Your task to perform on an android device: What's the weather going to be this weekend? Image 0: 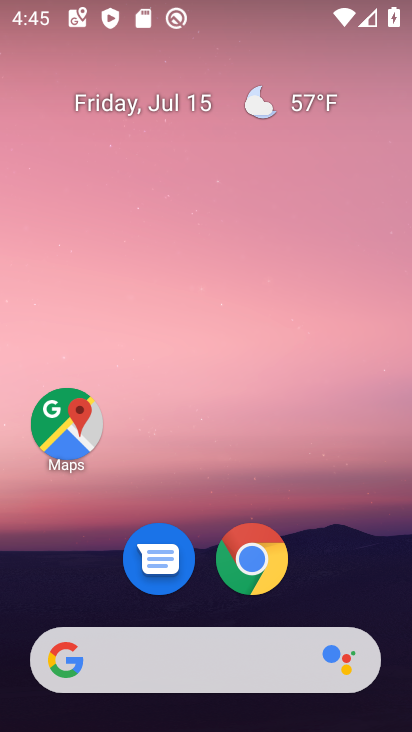
Step 0: click (214, 71)
Your task to perform on an android device: What's the weather going to be this weekend? Image 1: 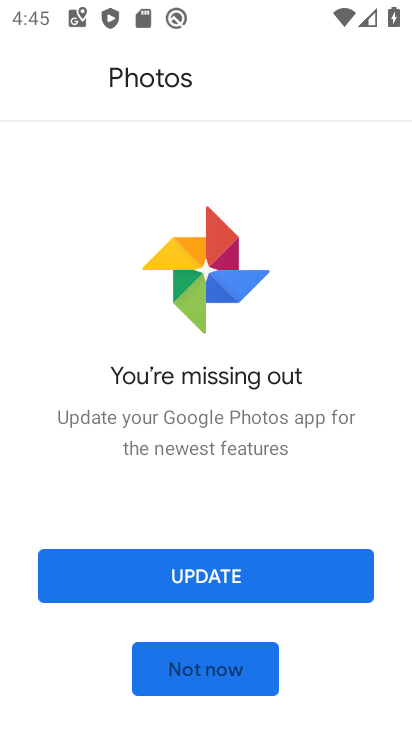
Step 1: click (235, 688)
Your task to perform on an android device: What's the weather going to be this weekend? Image 2: 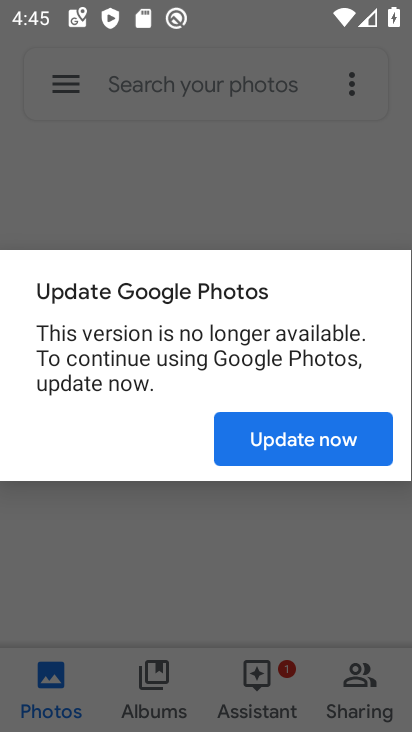
Step 2: press back button
Your task to perform on an android device: What's the weather going to be this weekend? Image 3: 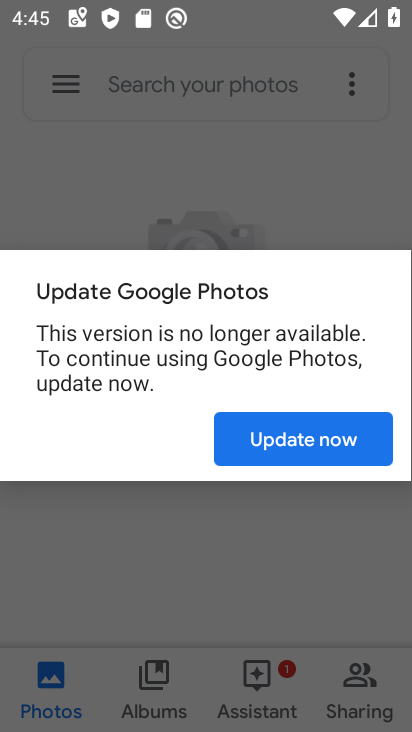
Step 3: press home button
Your task to perform on an android device: What's the weather going to be this weekend? Image 4: 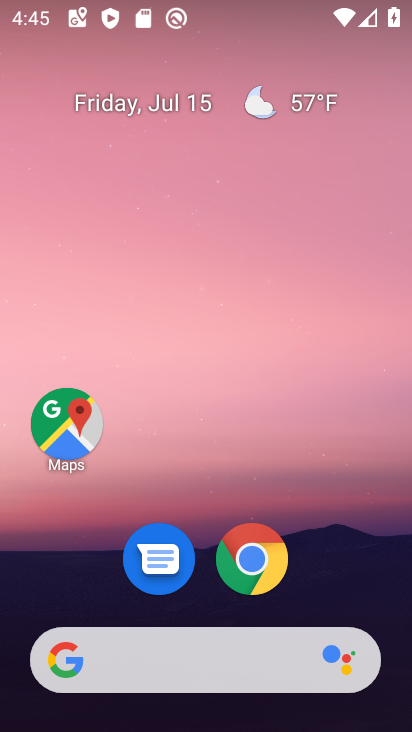
Step 4: click (149, 670)
Your task to perform on an android device: What's the weather going to be this weekend? Image 5: 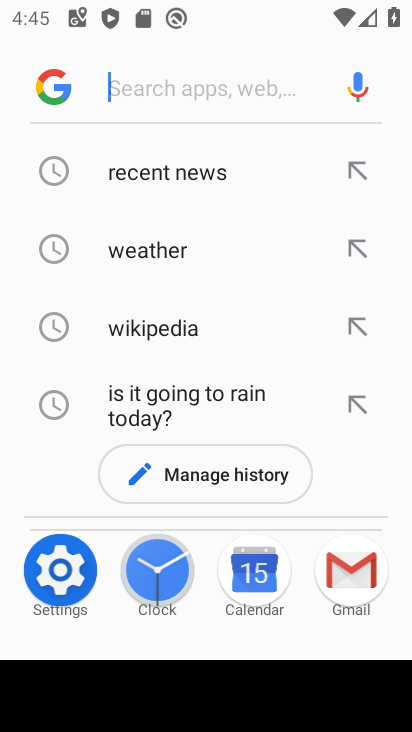
Step 5: click (156, 239)
Your task to perform on an android device: What's the weather going to be this weekend? Image 6: 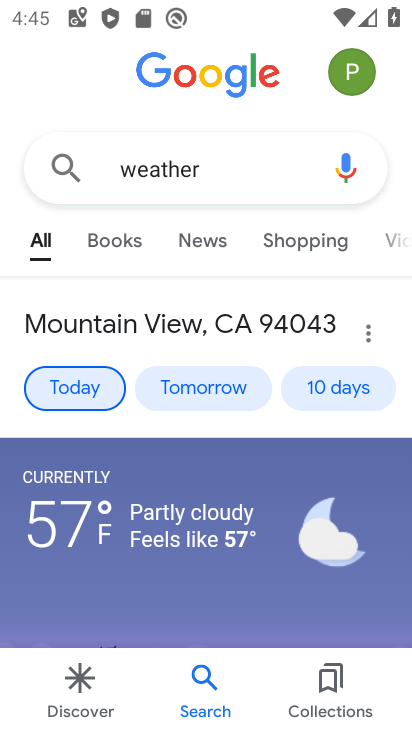
Step 6: click (337, 390)
Your task to perform on an android device: What's the weather going to be this weekend? Image 7: 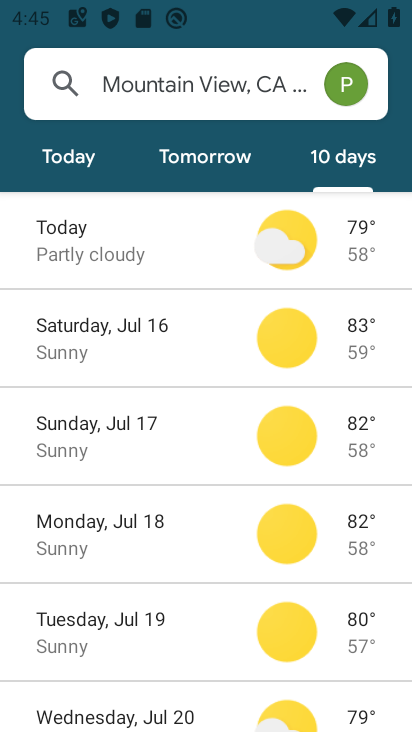
Step 7: task complete